Your task to perform on an android device: change alarm snooze length Image 0: 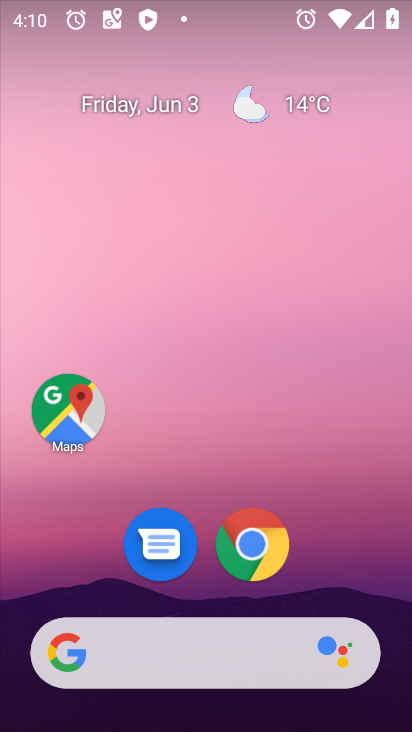
Step 0: drag from (392, 636) to (332, 72)
Your task to perform on an android device: change alarm snooze length Image 1: 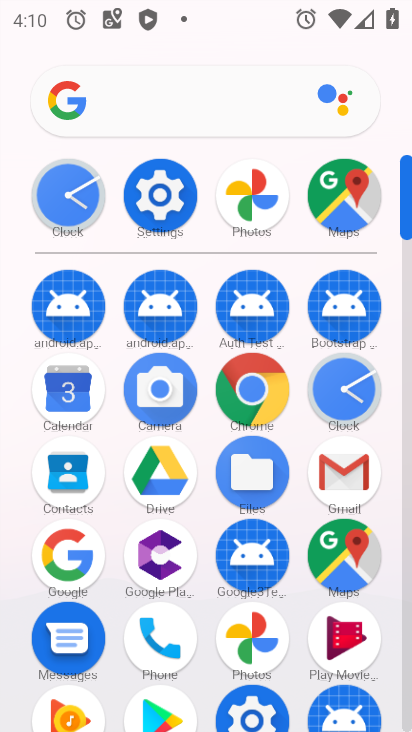
Step 1: click (409, 656)
Your task to perform on an android device: change alarm snooze length Image 2: 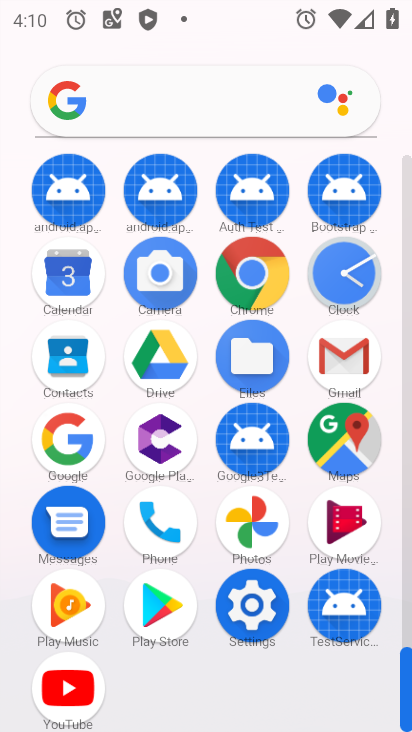
Step 2: click (340, 269)
Your task to perform on an android device: change alarm snooze length Image 3: 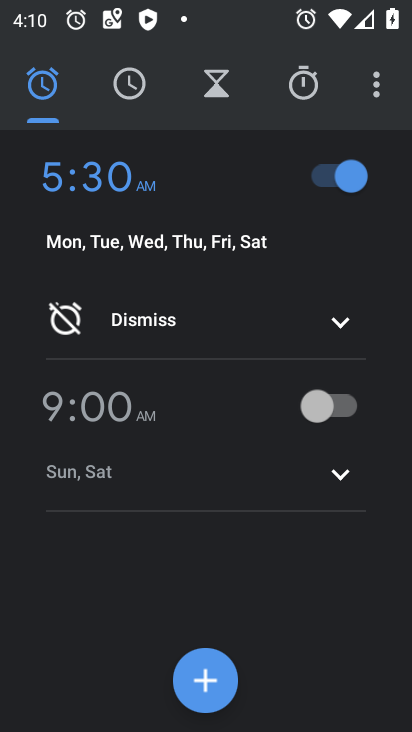
Step 3: click (376, 95)
Your task to perform on an android device: change alarm snooze length Image 4: 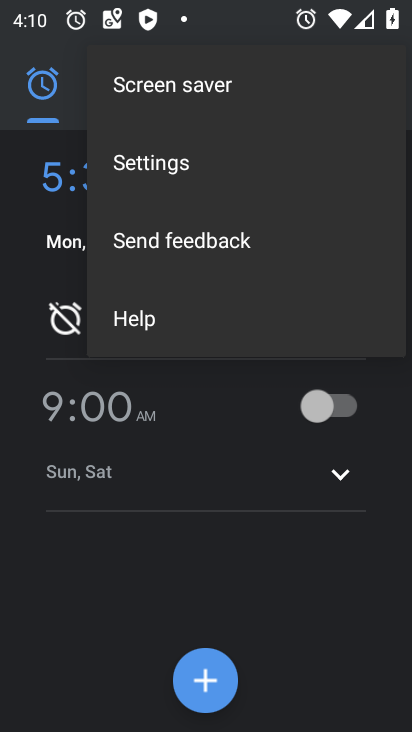
Step 4: click (131, 172)
Your task to perform on an android device: change alarm snooze length Image 5: 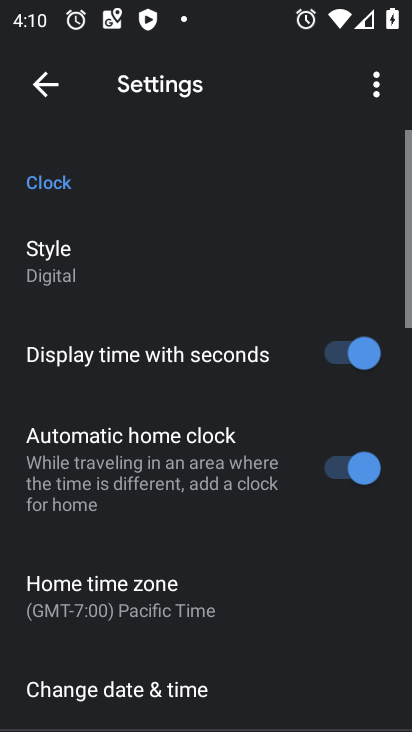
Step 5: drag from (222, 554) to (233, 158)
Your task to perform on an android device: change alarm snooze length Image 6: 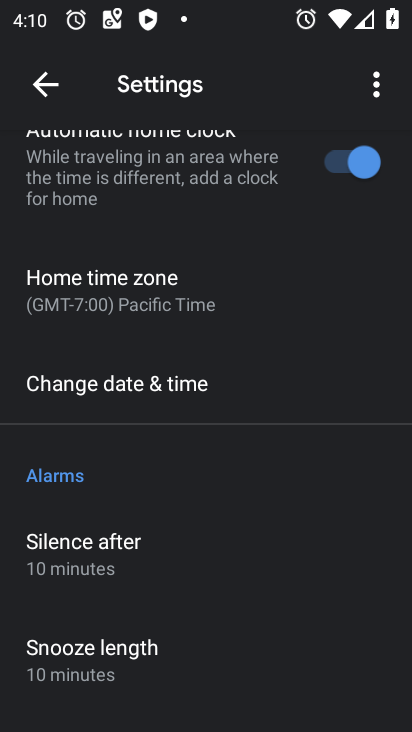
Step 6: drag from (189, 614) to (200, 248)
Your task to perform on an android device: change alarm snooze length Image 7: 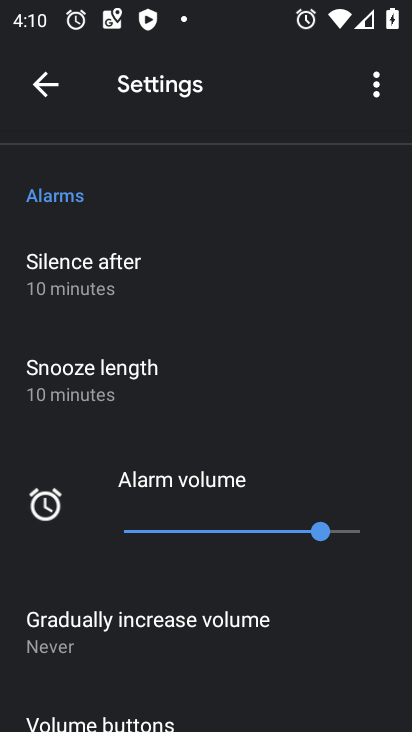
Step 7: click (104, 364)
Your task to perform on an android device: change alarm snooze length Image 8: 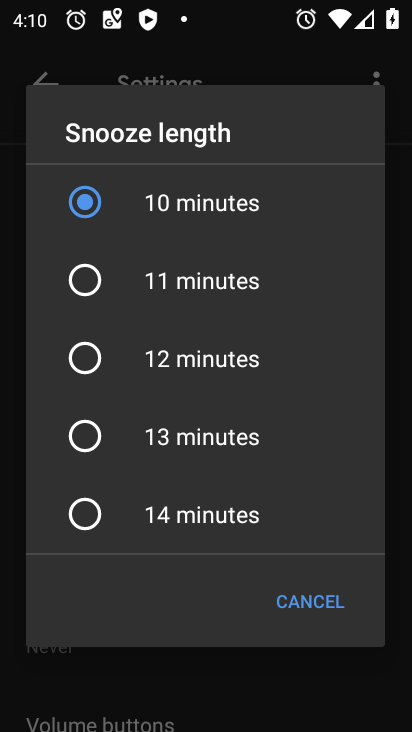
Step 8: click (97, 509)
Your task to perform on an android device: change alarm snooze length Image 9: 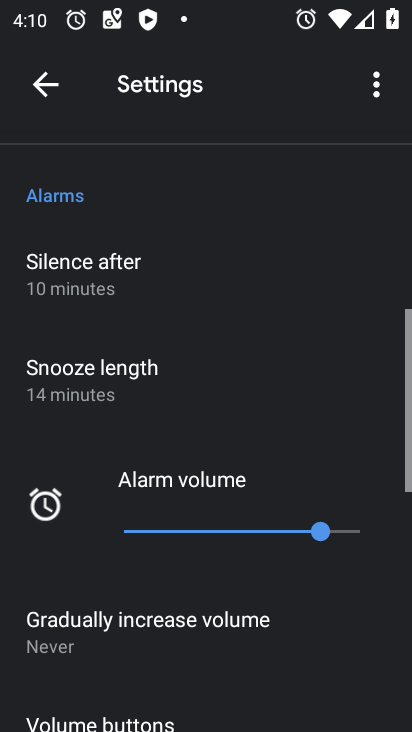
Step 9: task complete